Your task to perform on an android device: Open the phone app and click the voicemail tab. Image 0: 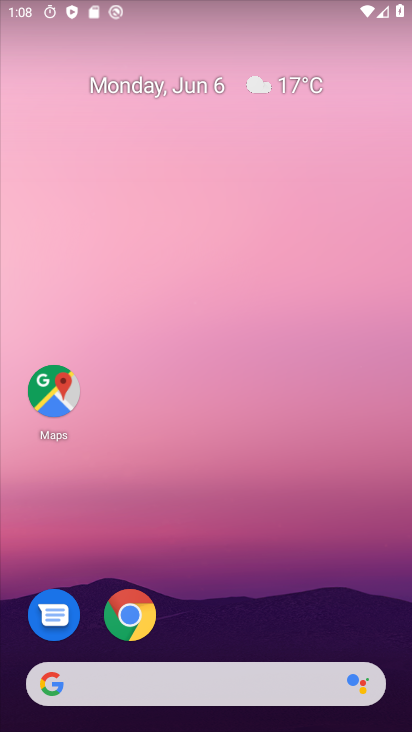
Step 0: drag from (191, 622) to (234, 160)
Your task to perform on an android device: Open the phone app and click the voicemail tab. Image 1: 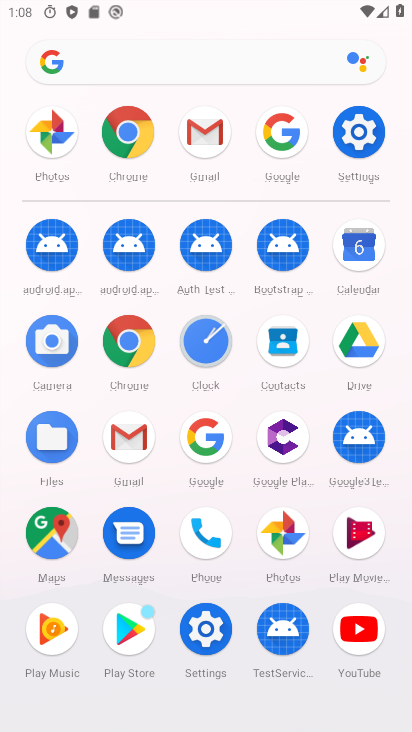
Step 1: click (187, 529)
Your task to perform on an android device: Open the phone app and click the voicemail tab. Image 2: 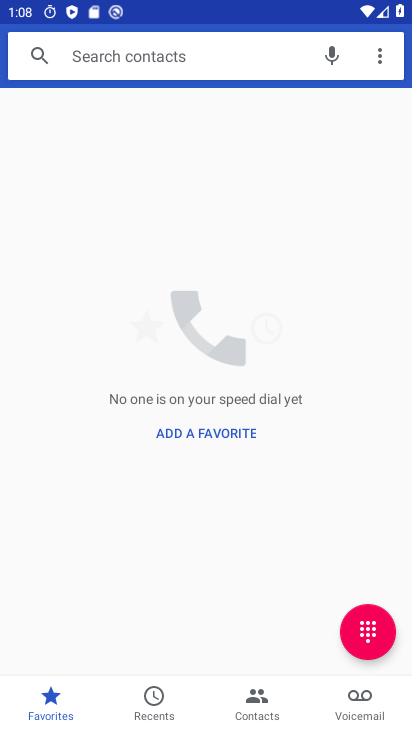
Step 2: click (374, 700)
Your task to perform on an android device: Open the phone app and click the voicemail tab. Image 3: 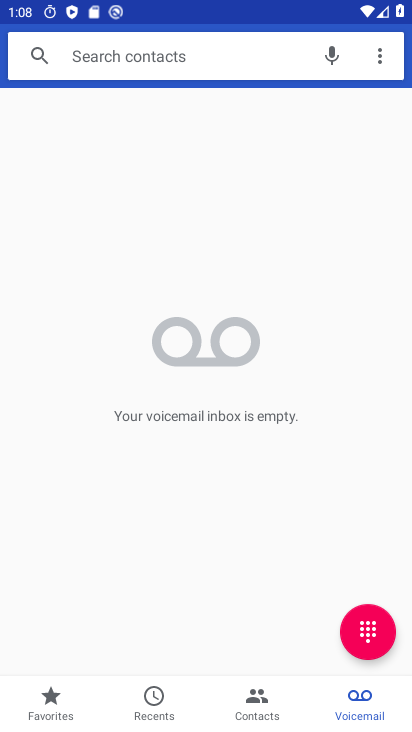
Step 3: task complete